Your task to perform on an android device: Open settings Image 0: 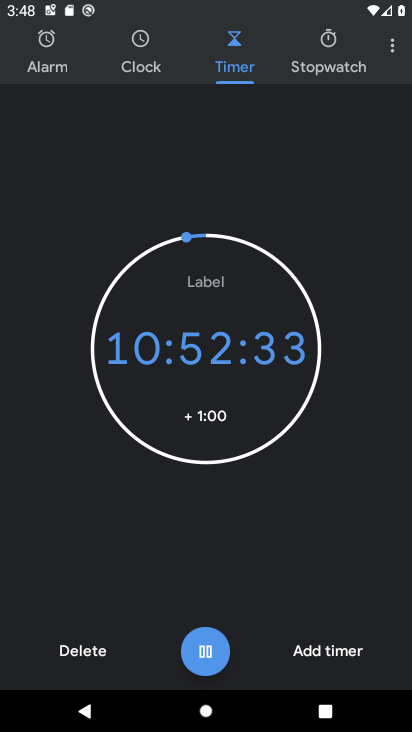
Step 0: press home button
Your task to perform on an android device: Open settings Image 1: 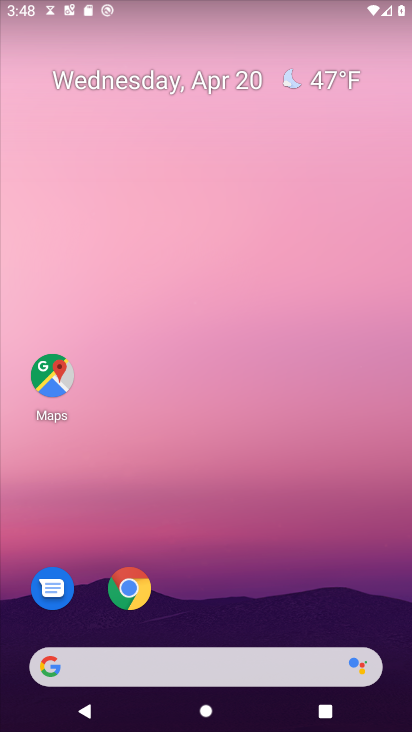
Step 1: drag from (261, 618) to (251, 40)
Your task to perform on an android device: Open settings Image 2: 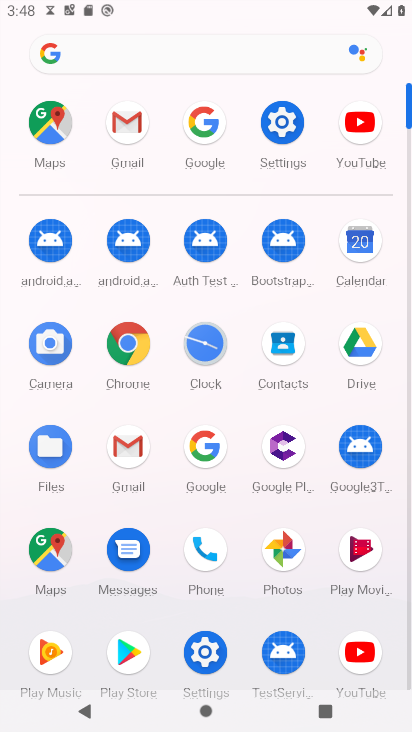
Step 2: click (197, 660)
Your task to perform on an android device: Open settings Image 3: 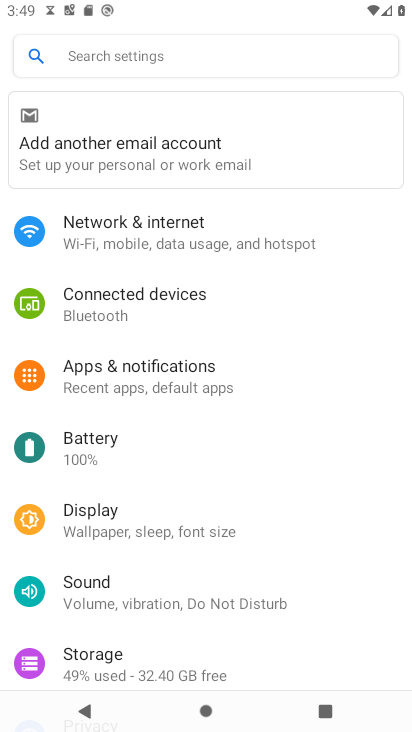
Step 3: task complete